Your task to perform on an android device: turn smart compose on in the gmail app Image 0: 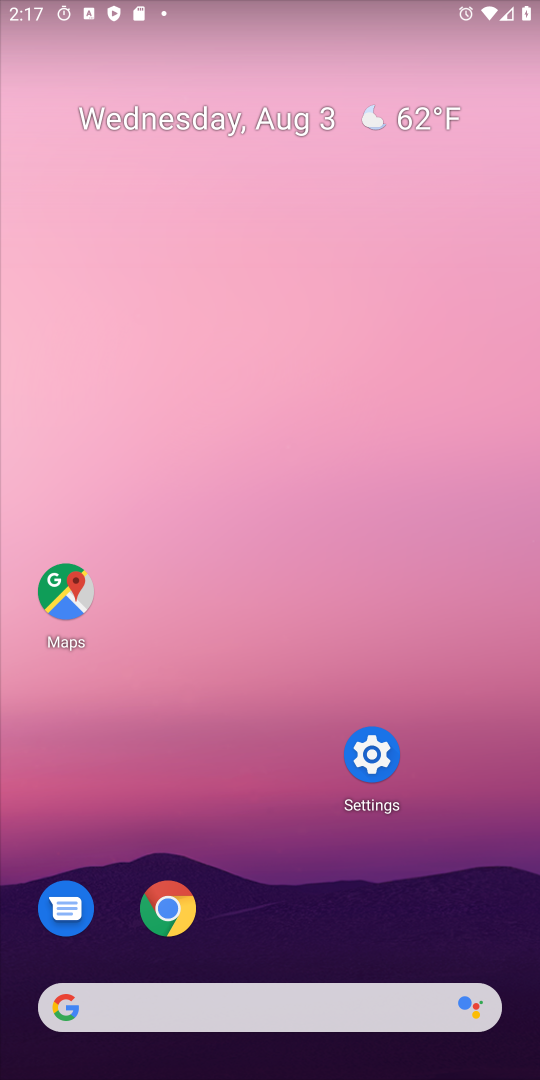
Step 0: drag from (282, 936) to (307, 255)
Your task to perform on an android device: turn smart compose on in the gmail app Image 1: 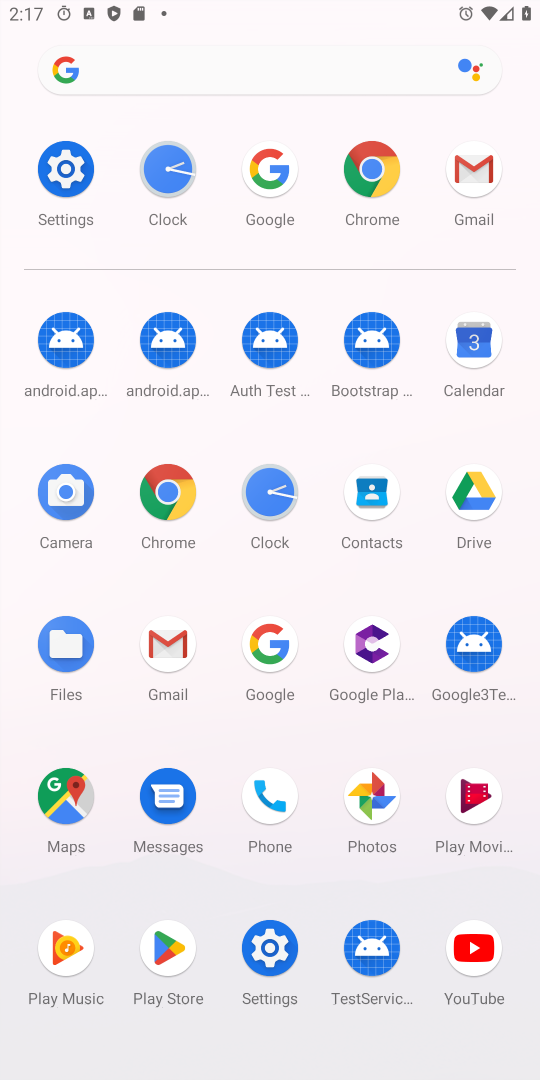
Step 1: click (174, 666)
Your task to perform on an android device: turn smart compose on in the gmail app Image 2: 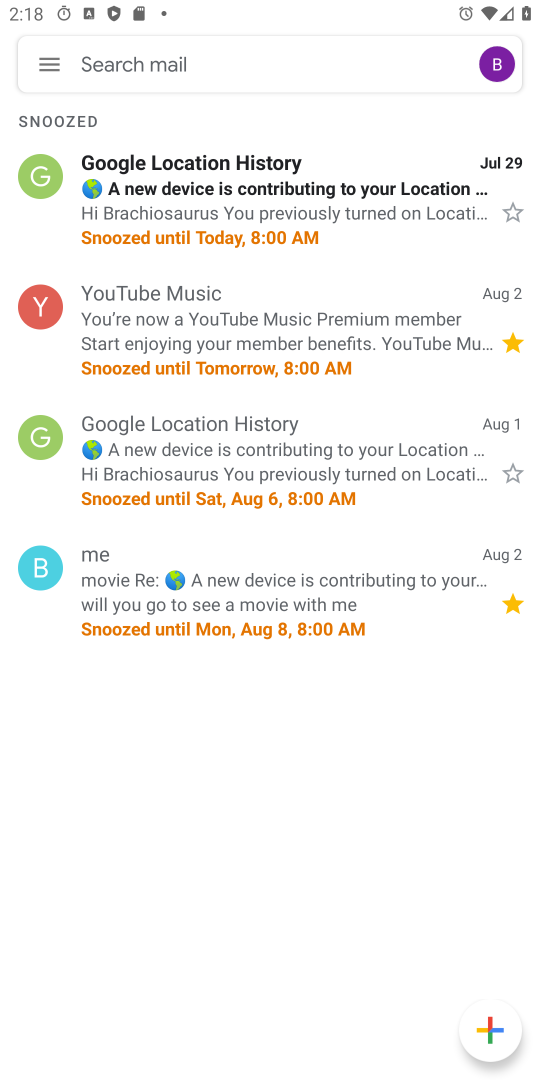
Step 2: click (57, 69)
Your task to perform on an android device: turn smart compose on in the gmail app Image 3: 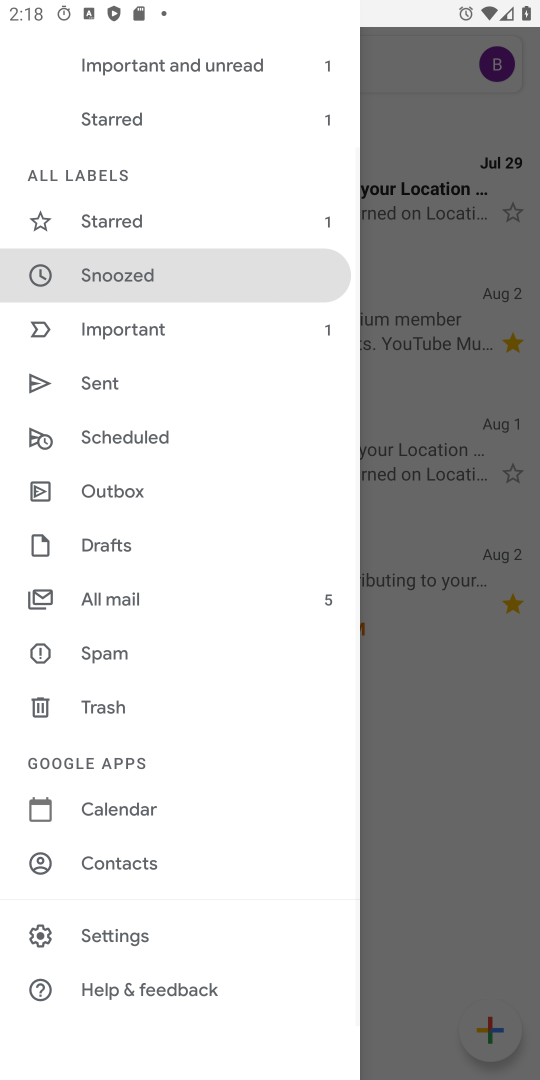
Step 3: click (142, 947)
Your task to perform on an android device: turn smart compose on in the gmail app Image 4: 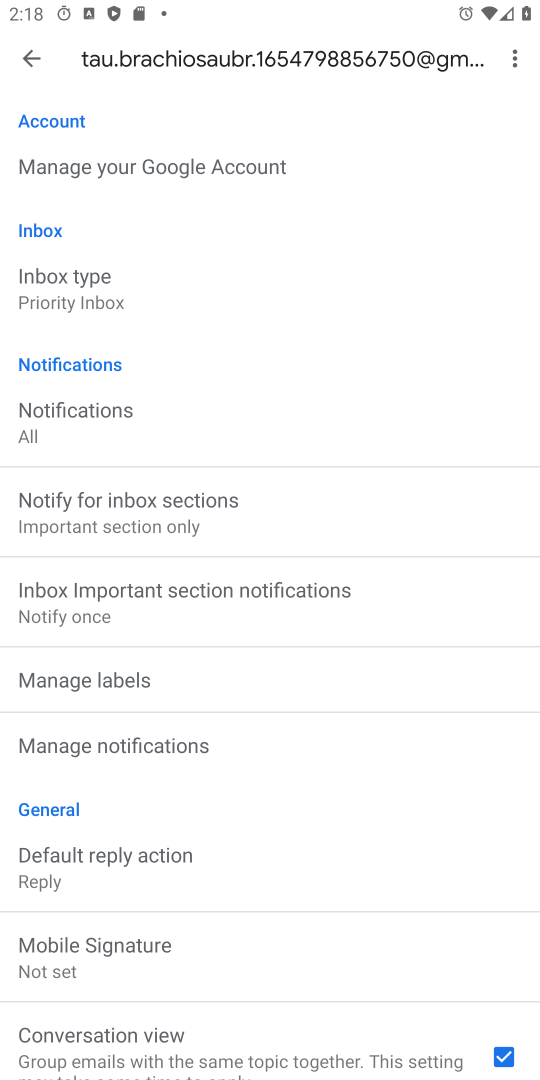
Step 4: task complete